Your task to perform on an android device: refresh tabs in the chrome app Image 0: 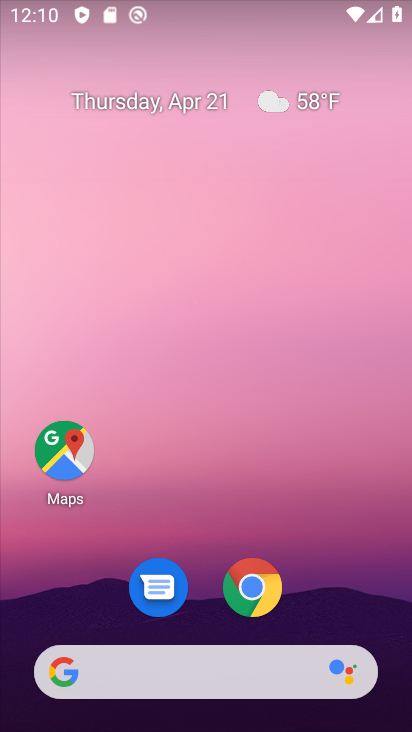
Step 0: click (245, 595)
Your task to perform on an android device: refresh tabs in the chrome app Image 1: 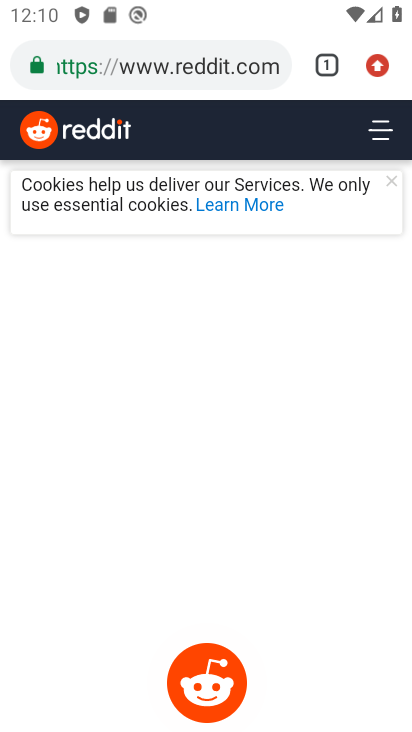
Step 1: click (378, 68)
Your task to perform on an android device: refresh tabs in the chrome app Image 2: 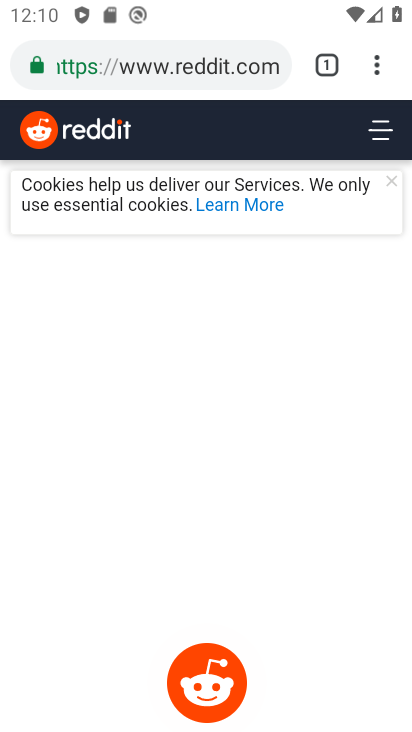
Step 2: click (379, 66)
Your task to perform on an android device: refresh tabs in the chrome app Image 3: 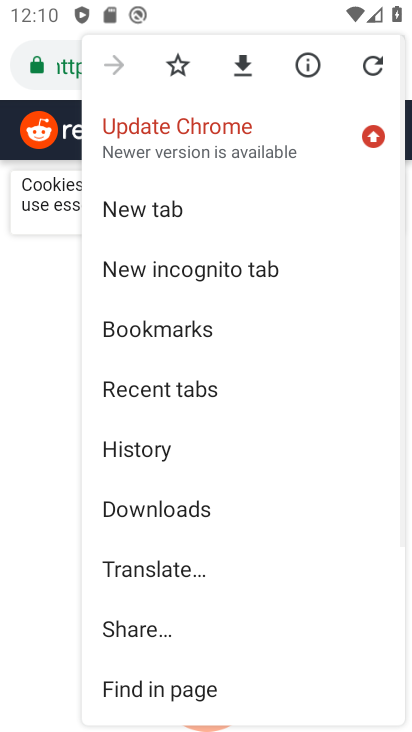
Step 3: click (378, 67)
Your task to perform on an android device: refresh tabs in the chrome app Image 4: 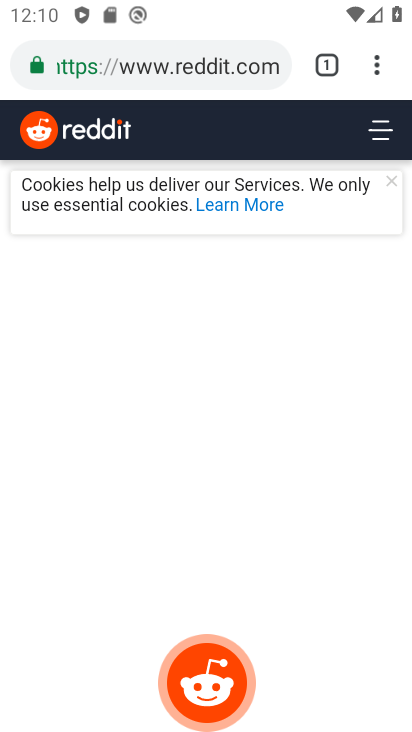
Step 4: task complete